Your task to perform on an android device: turn off translation in the chrome app Image 0: 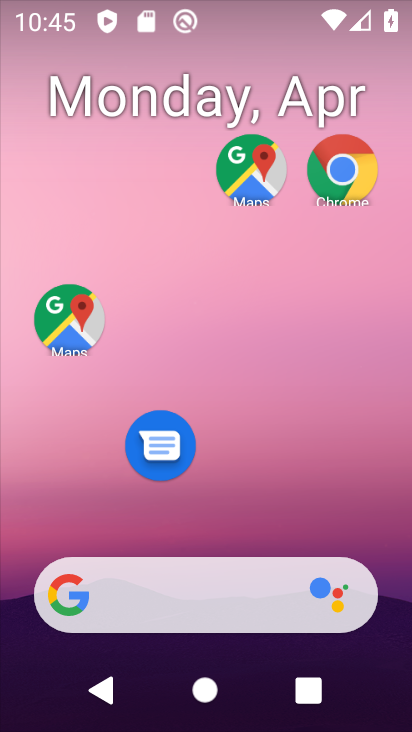
Step 0: click (355, 176)
Your task to perform on an android device: turn off translation in the chrome app Image 1: 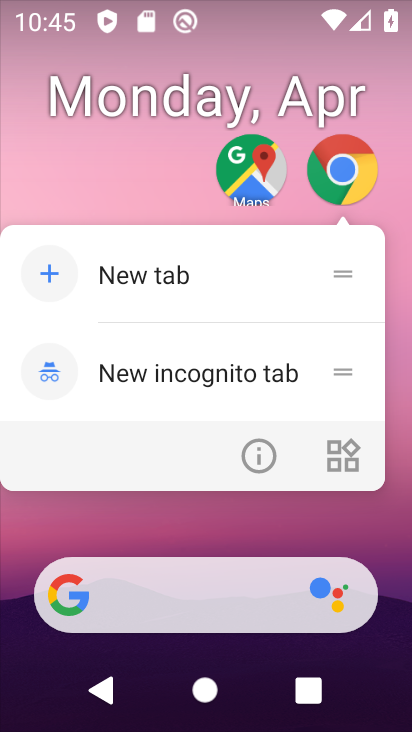
Step 1: click (351, 179)
Your task to perform on an android device: turn off translation in the chrome app Image 2: 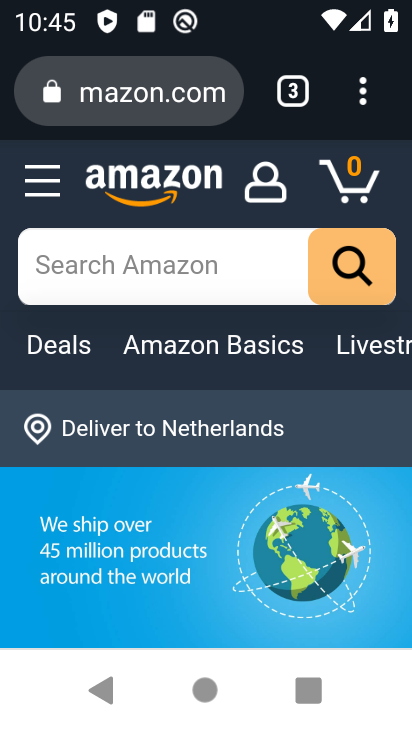
Step 2: click (368, 73)
Your task to perform on an android device: turn off translation in the chrome app Image 3: 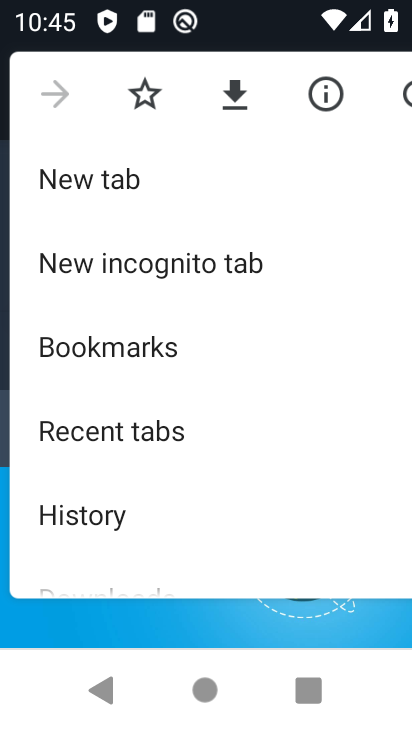
Step 3: drag from (221, 428) to (185, 173)
Your task to perform on an android device: turn off translation in the chrome app Image 4: 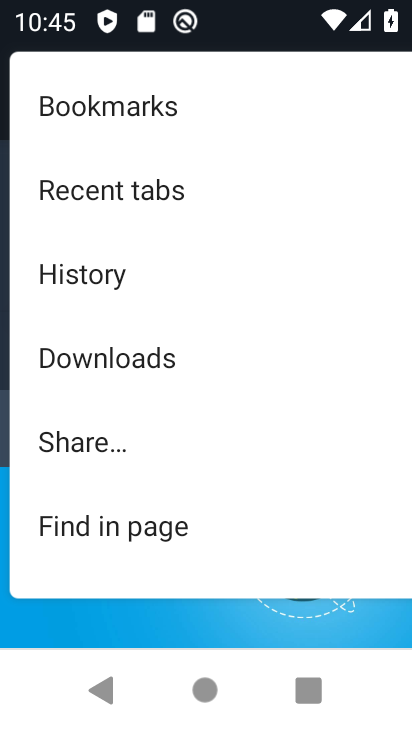
Step 4: drag from (124, 360) to (130, 156)
Your task to perform on an android device: turn off translation in the chrome app Image 5: 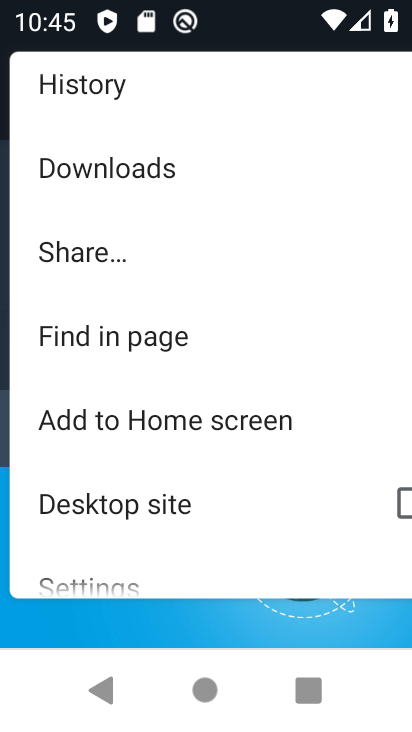
Step 5: click (135, 570)
Your task to perform on an android device: turn off translation in the chrome app Image 6: 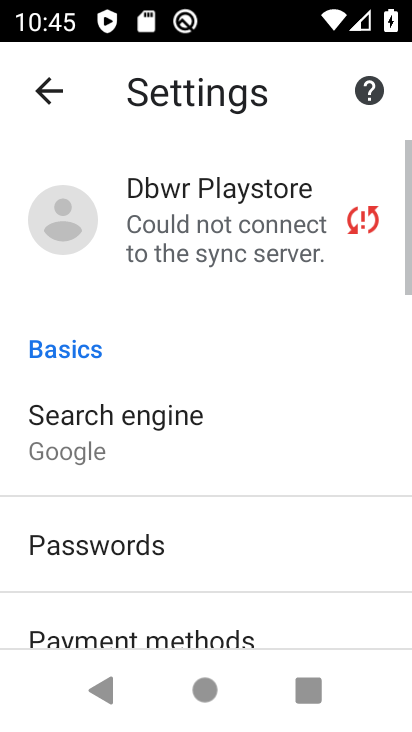
Step 6: drag from (234, 555) to (232, 114)
Your task to perform on an android device: turn off translation in the chrome app Image 7: 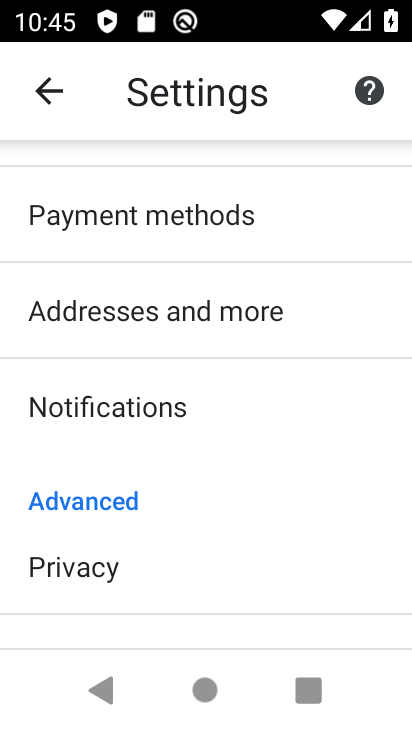
Step 7: drag from (166, 558) to (202, 161)
Your task to perform on an android device: turn off translation in the chrome app Image 8: 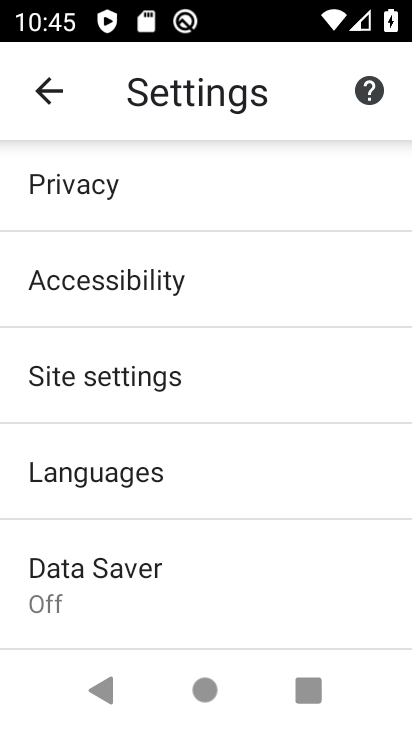
Step 8: click (167, 474)
Your task to perform on an android device: turn off translation in the chrome app Image 9: 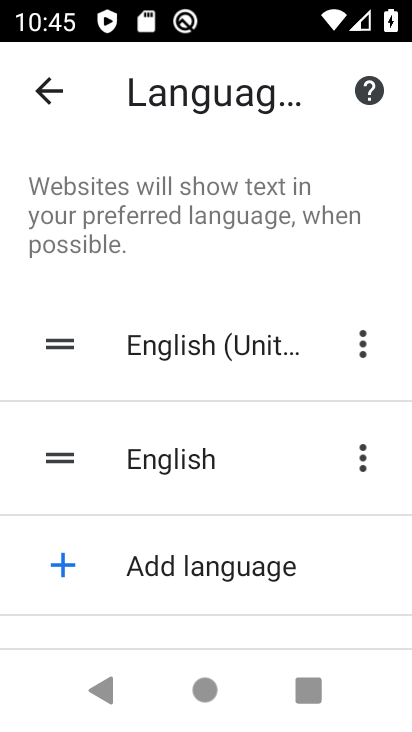
Step 9: task complete